Your task to perform on an android device: Go to display settings Image 0: 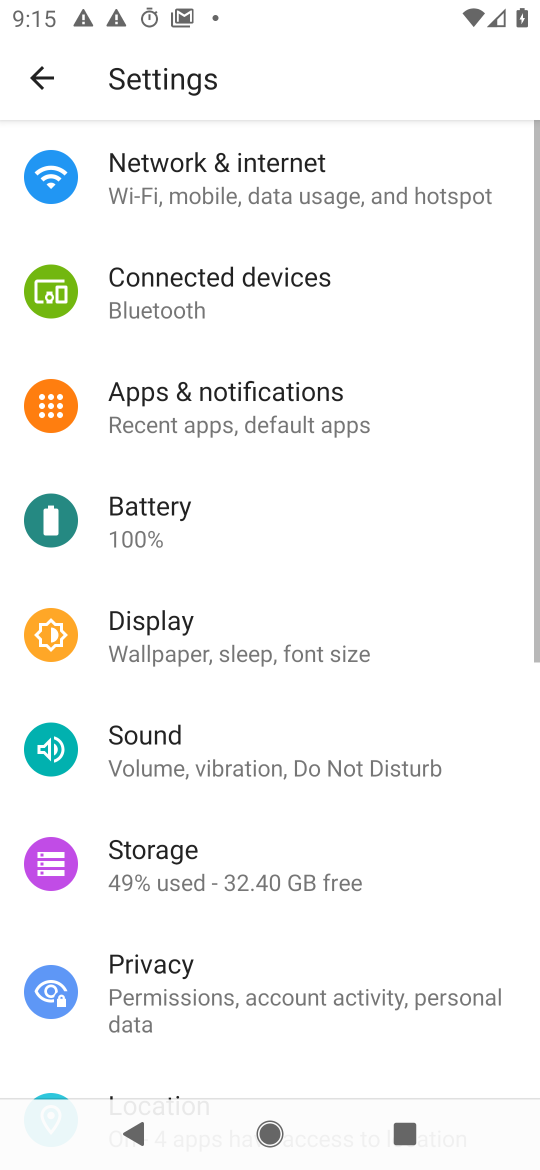
Step 0: click (163, 633)
Your task to perform on an android device: Go to display settings Image 1: 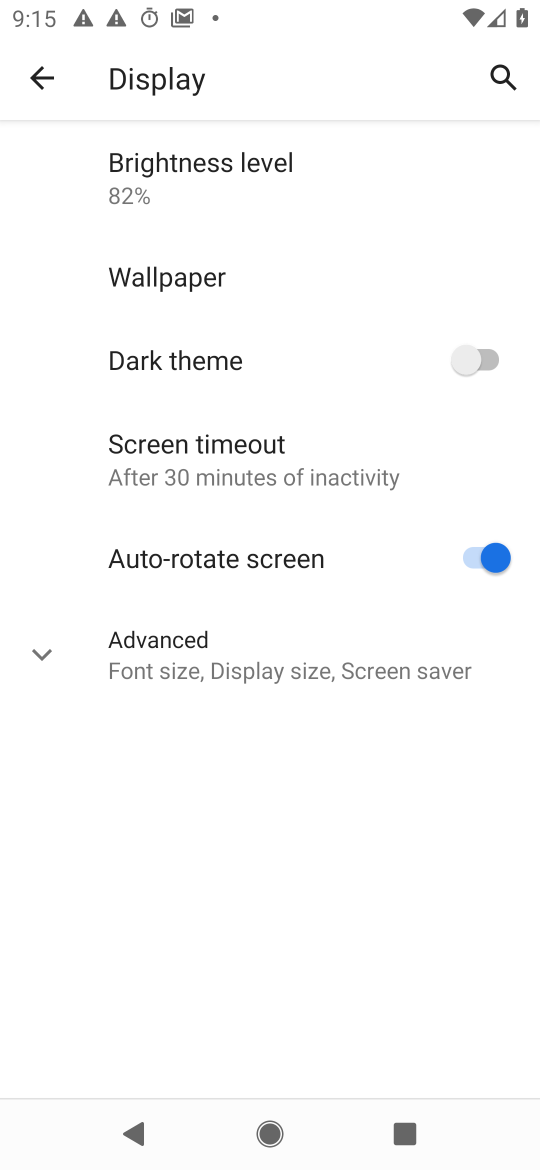
Step 1: task complete